Your task to perform on an android device: find photos in the google photos app Image 0: 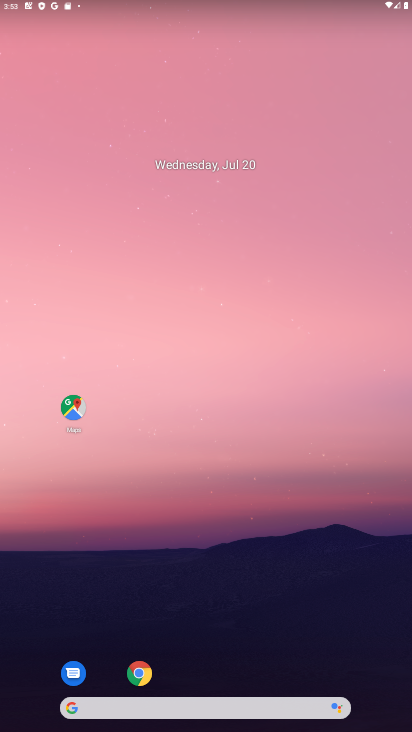
Step 0: drag from (252, 591) to (275, 12)
Your task to perform on an android device: find photos in the google photos app Image 1: 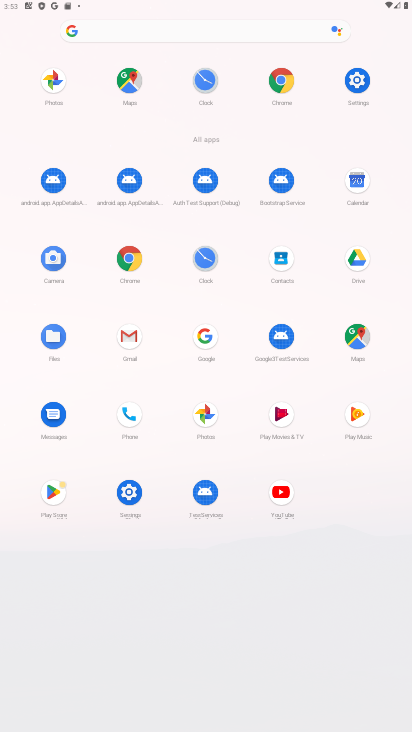
Step 1: click (52, 86)
Your task to perform on an android device: find photos in the google photos app Image 2: 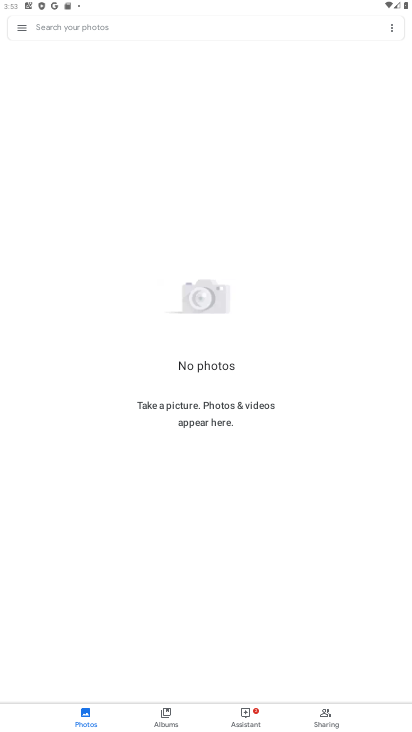
Step 2: task complete